Your task to perform on an android device: turn on location history Image 0: 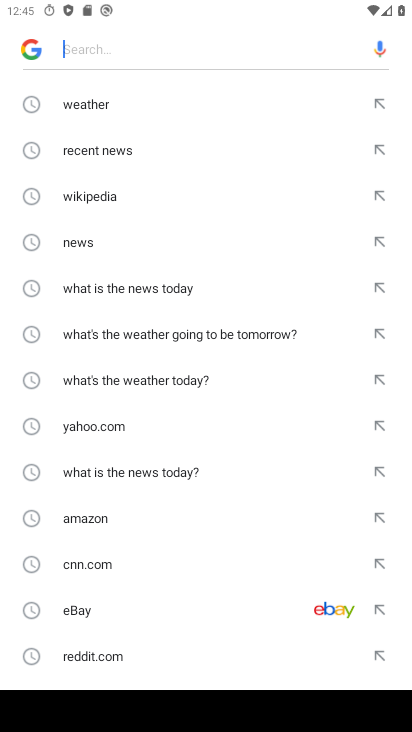
Step 0: press back button
Your task to perform on an android device: turn on location history Image 1: 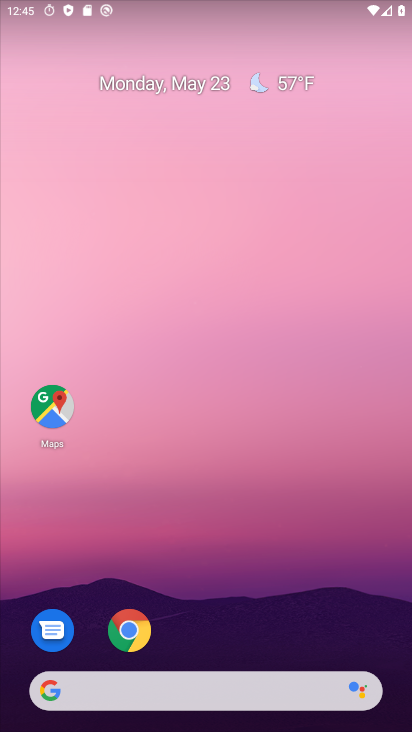
Step 1: drag from (305, 588) to (289, 61)
Your task to perform on an android device: turn on location history Image 2: 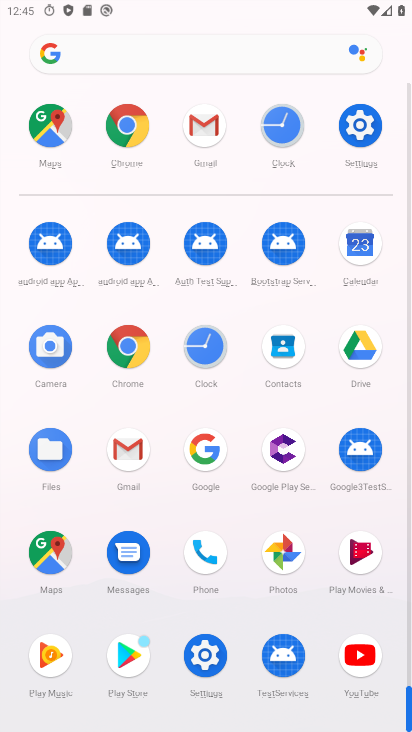
Step 2: drag from (6, 580) to (12, 242)
Your task to perform on an android device: turn on location history Image 3: 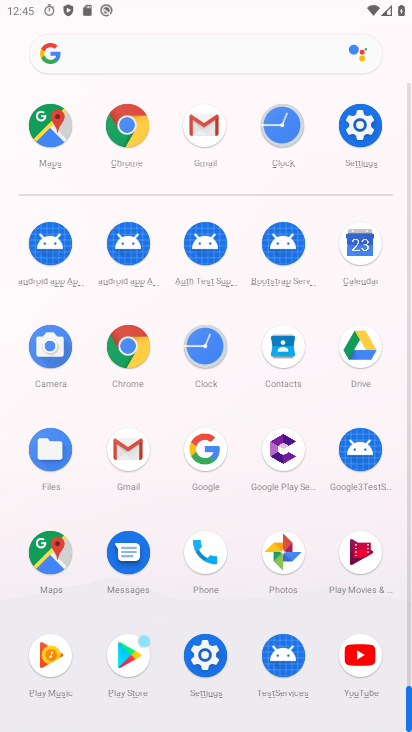
Step 3: click (204, 654)
Your task to perform on an android device: turn on location history Image 4: 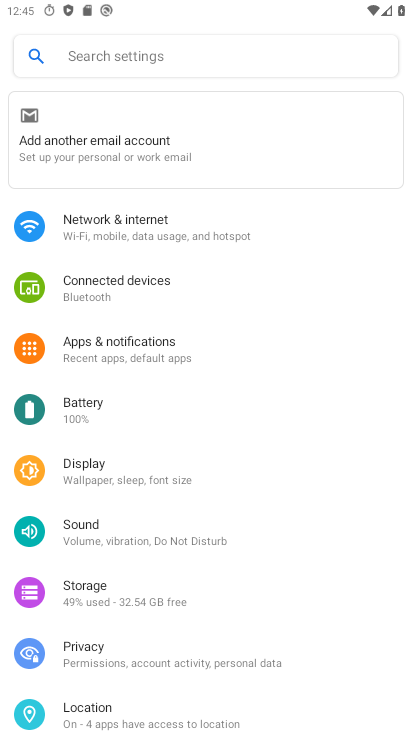
Step 4: drag from (219, 562) to (246, 164)
Your task to perform on an android device: turn on location history Image 5: 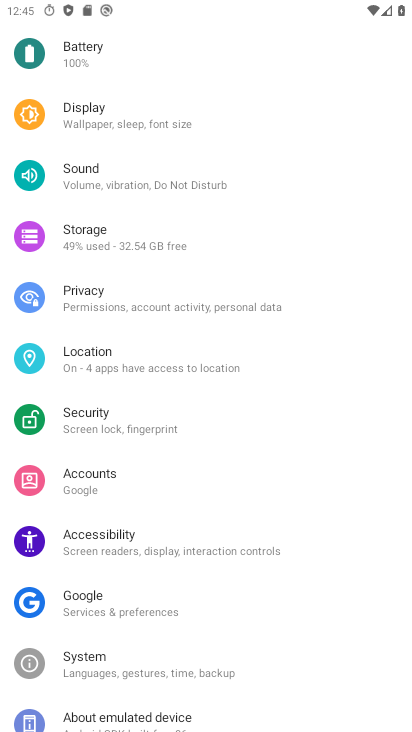
Step 5: click (120, 359)
Your task to perform on an android device: turn on location history Image 6: 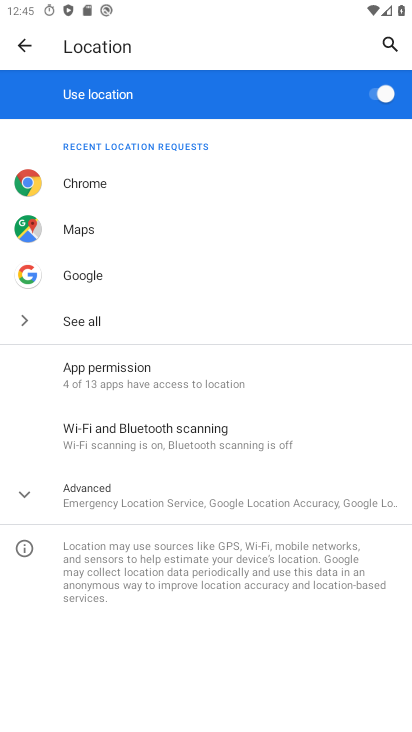
Step 6: click (26, 498)
Your task to perform on an android device: turn on location history Image 7: 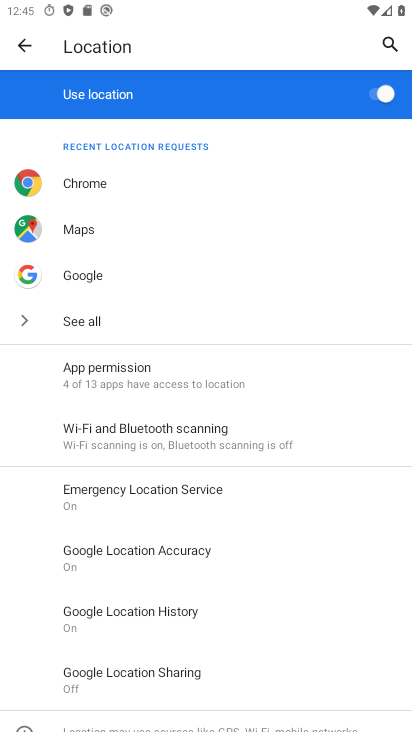
Step 7: click (192, 616)
Your task to perform on an android device: turn on location history Image 8: 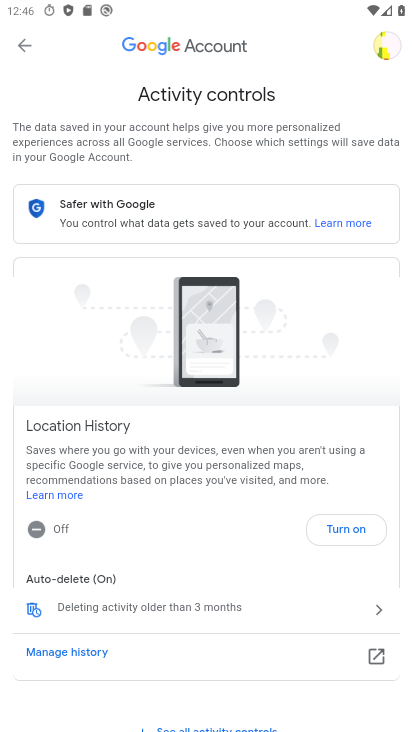
Step 8: click (338, 529)
Your task to perform on an android device: turn on location history Image 9: 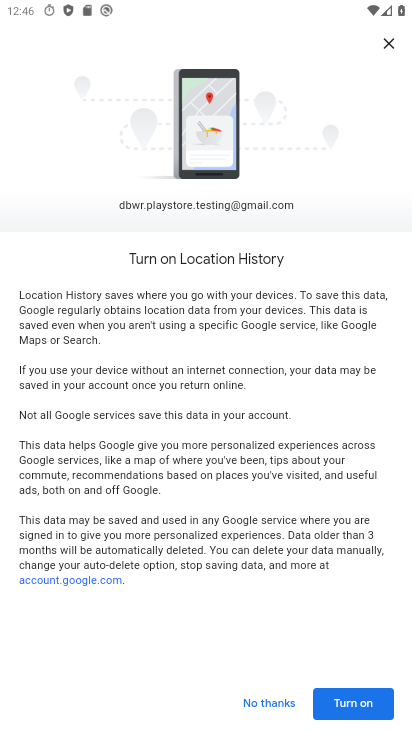
Step 9: click (355, 709)
Your task to perform on an android device: turn on location history Image 10: 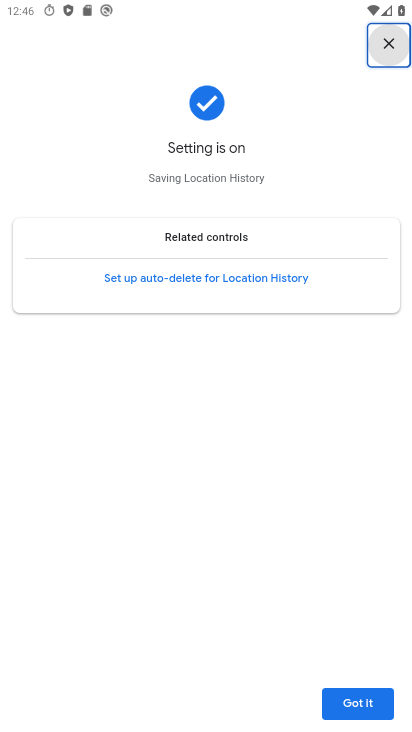
Step 10: task complete